Your task to perform on an android device: Open location settings Image 0: 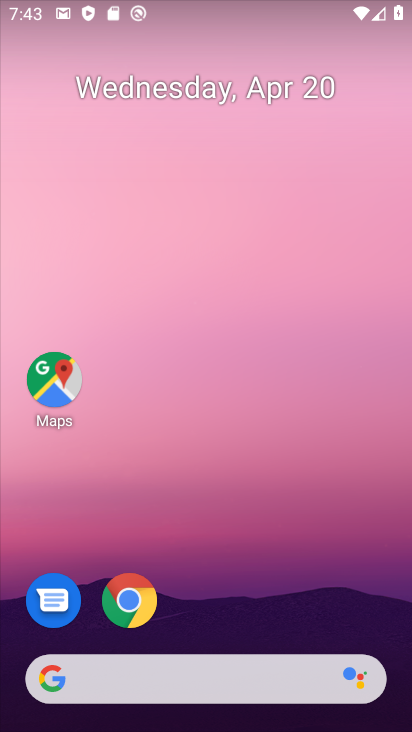
Step 0: drag from (205, 598) to (210, 180)
Your task to perform on an android device: Open location settings Image 1: 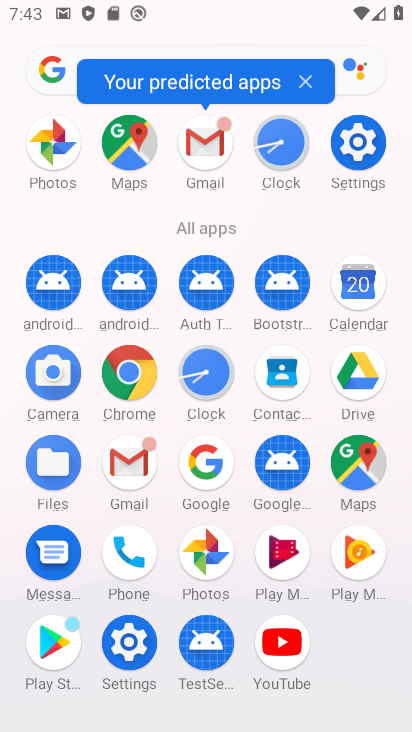
Step 1: click (359, 140)
Your task to perform on an android device: Open location settings Image 2: 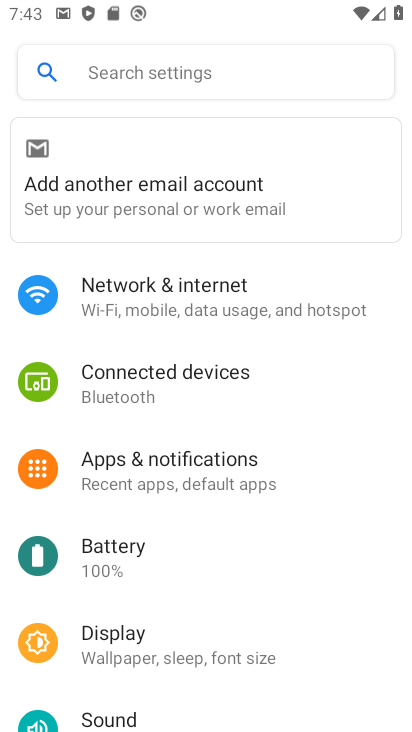
Step 2: drag from (129, 680) to (165, 282)
Your task to perform on an android device: Open location settings Image 3: 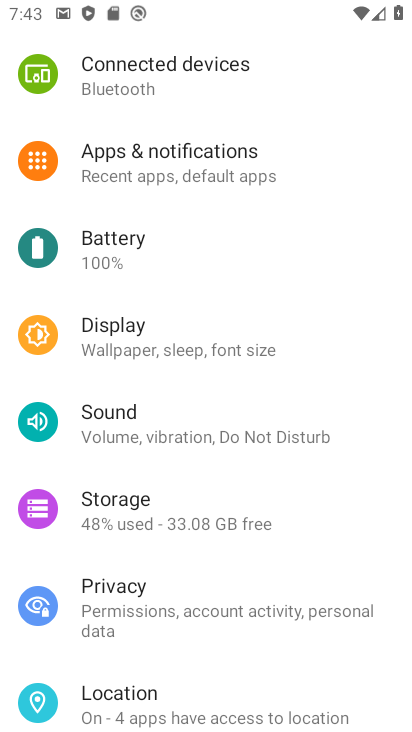
Step 3: click (130, 697)
Your task to perform on an android device: Open location settings Image 4: 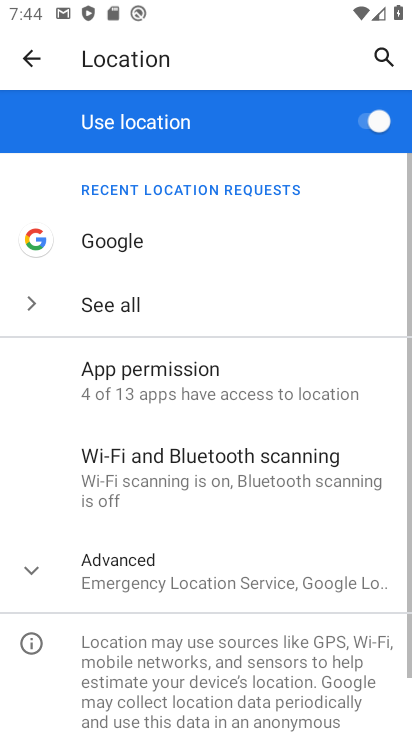
Step 4: task complete